Your task to perform on an android device: add a contact Image 0: 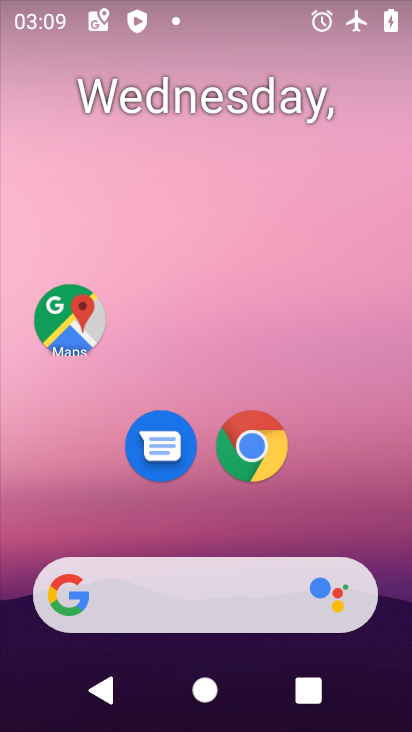
Step 0: drag from (207, 530) to (206, 235)
Your task to perform on an android device: add a contact Image 1: 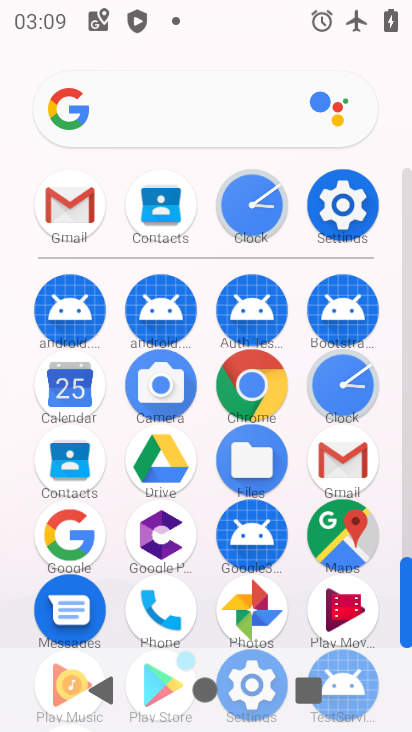
Step 1: click (67, 452)
Your task to perform on an android device: add a contact Image 2: 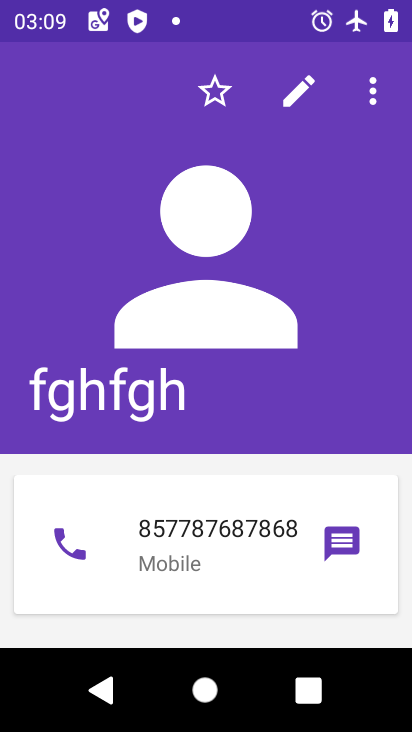
Step 2: press back button
Your task to perform on an android device: add a contact Image 3: 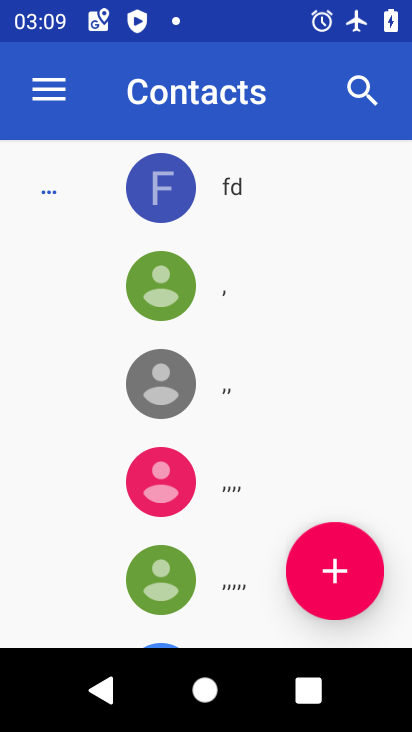
Step 3: click (324, 554)
Your task to perform on an android device: add a contact Image 4: 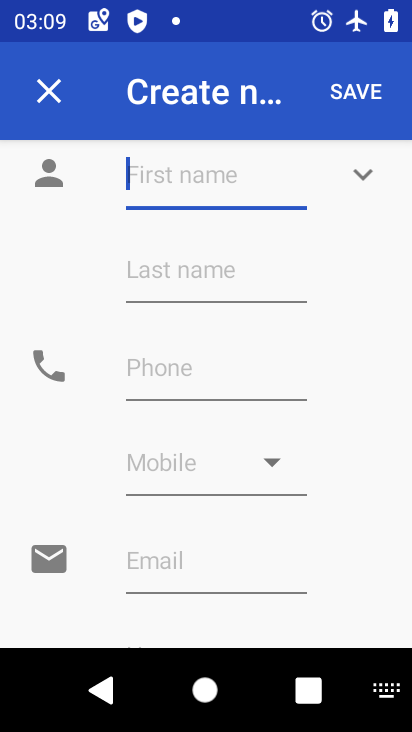
Step 4: type "vng"
Your task to perform on an android device: add a contact Image 5: 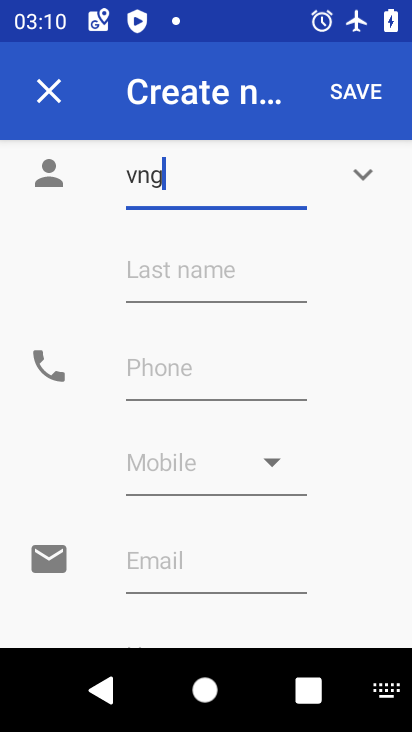
Step 5: click (184, 355)
Your task to perform on an android device: add a contact Image 6: 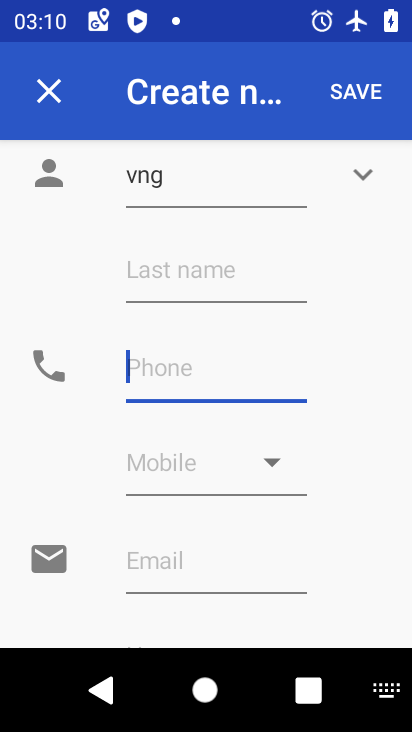
Step 6: type "86575675756"
Your task to perform on an android device: add a contact Image 7: 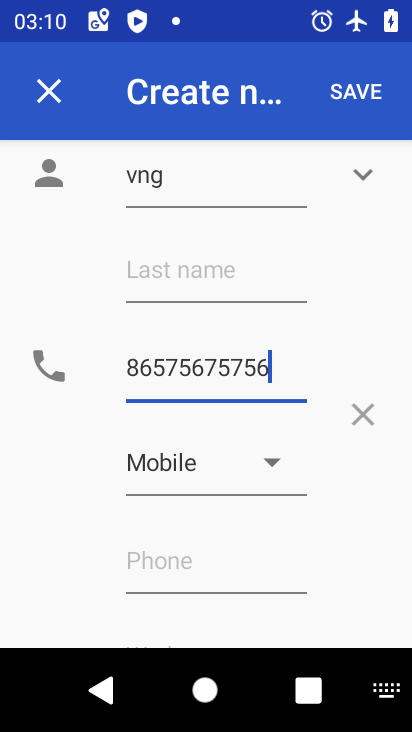
Step 7: click (356, 89)
Your task to perform on an android device: add a contact Image 8: 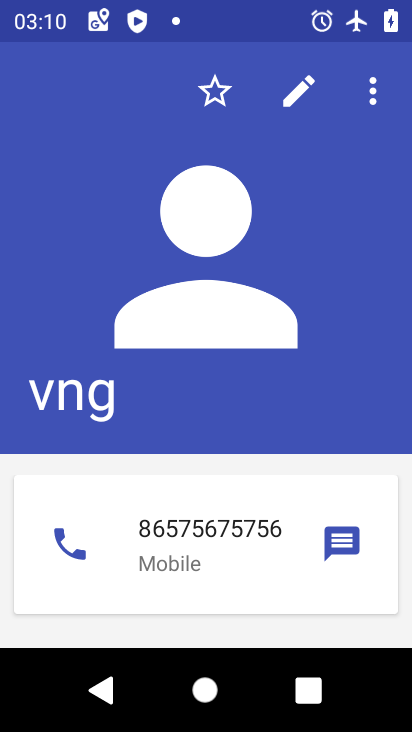
Step 8: task complete